Your task to perform on an android device: set default search engine in the chrome app Image 0: 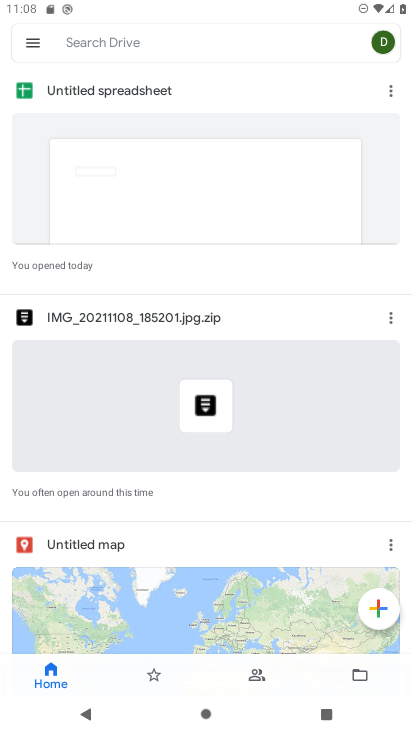
Step 0: press home button
Your task to perform on an android device: set default search engine in the chrome app Image 1: 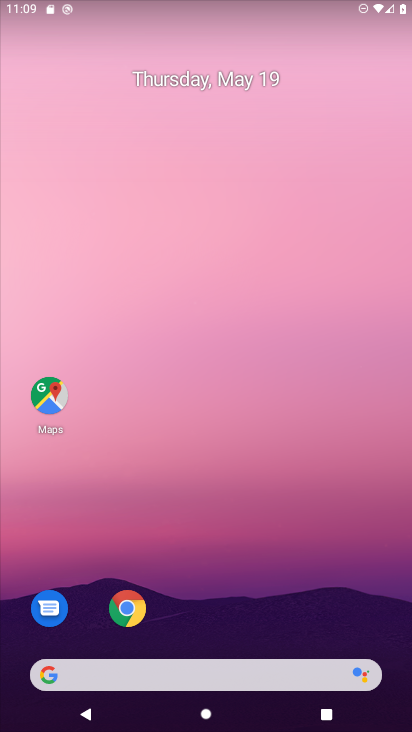
Step 1: drag from (243, 552) to (333, 86)
Your task to perform on an android device: set default search engine in the chrome app Image 2: 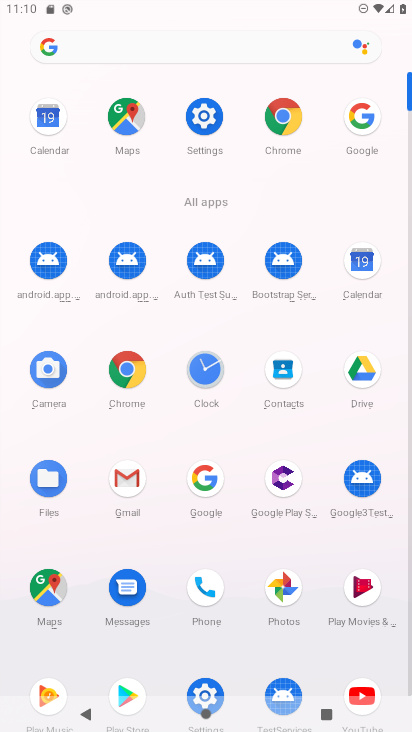
Step 2: click (280, 137)
Your task to perform on an android device: set default search engine in the chrome app Image 3: 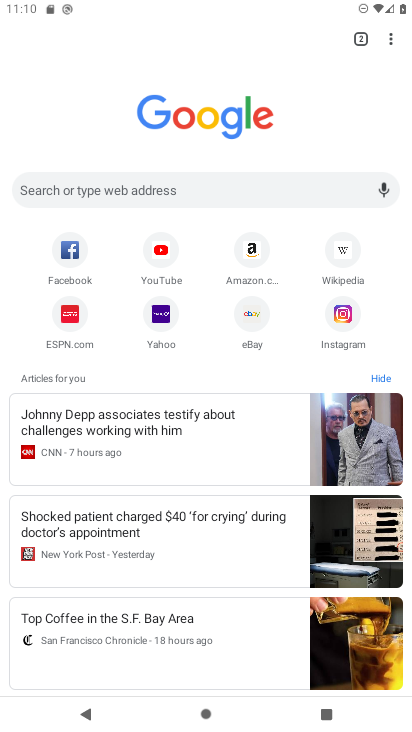
Step 3: drag from (387, 40) to (239, 327)
Your task to perform on an android device: set default search engine in the chrome app Image 4: 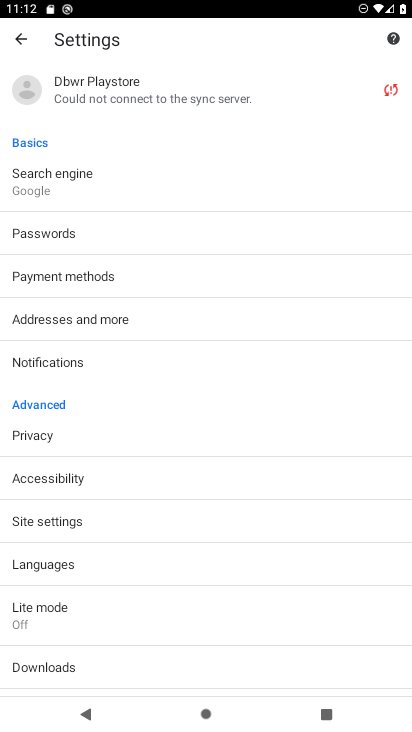
Step 4: click (191, 188)
Your task to perform on an android device: set default search engine in the chrome app Image 5: 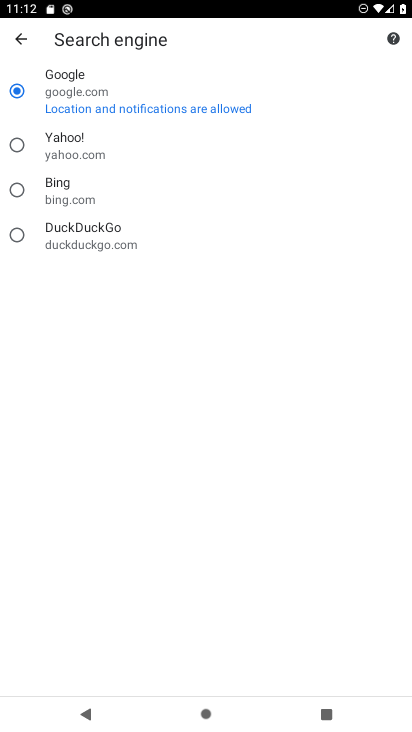
Step 5: task complete